Your task to perform on an android device: open app "Grab" Image 0: 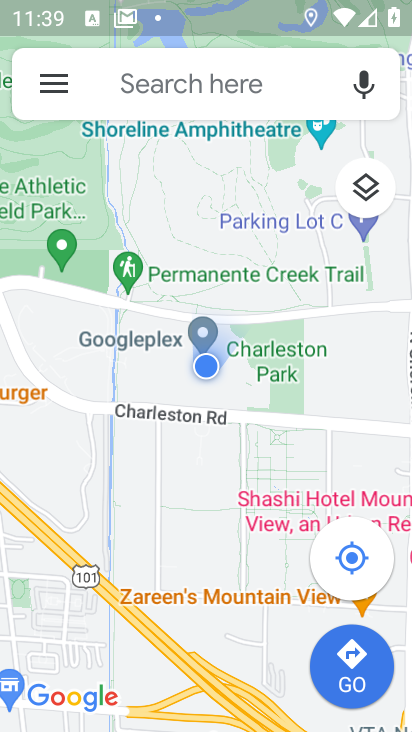
Step 0: press back button
Your task to perform on an android device: open app "Grab" Image 1: 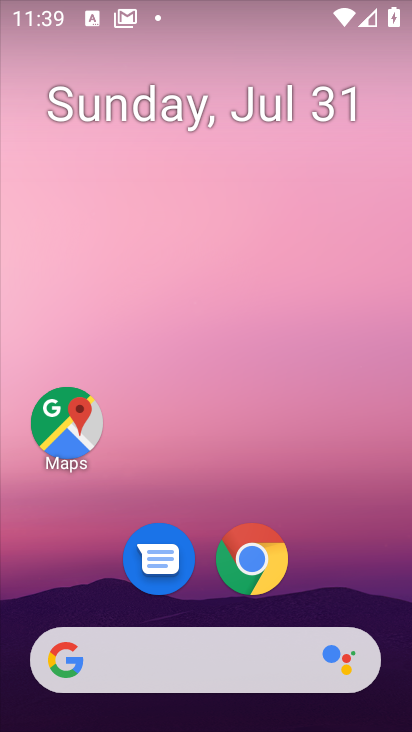
Step 1: drag from (44, 567) to (228, 15)
Your task to perform on an android device: open app "Grab" Image 2: 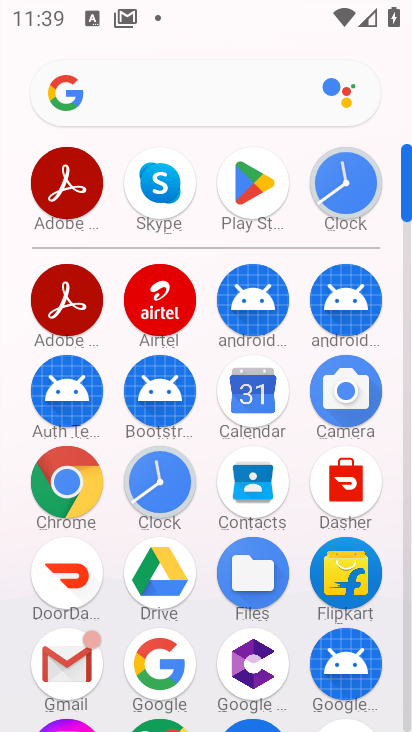
Step 2: click (264, 179)
Your task to perform on an android device: open app "Grab" Image 3: 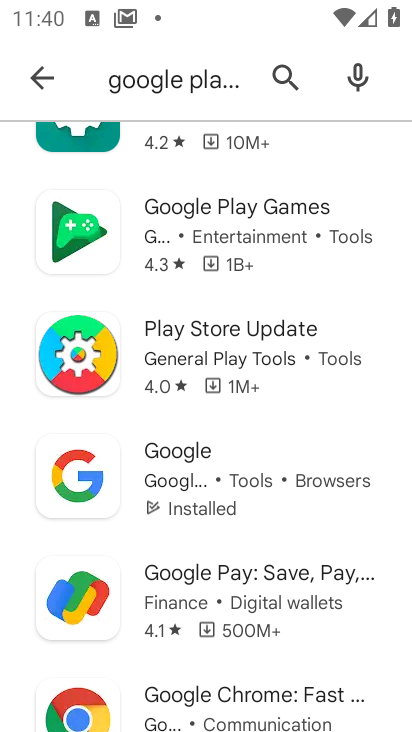
Step 3: click (285, 77)
Your task to perform on an android device: open app "Grab" Image 4: 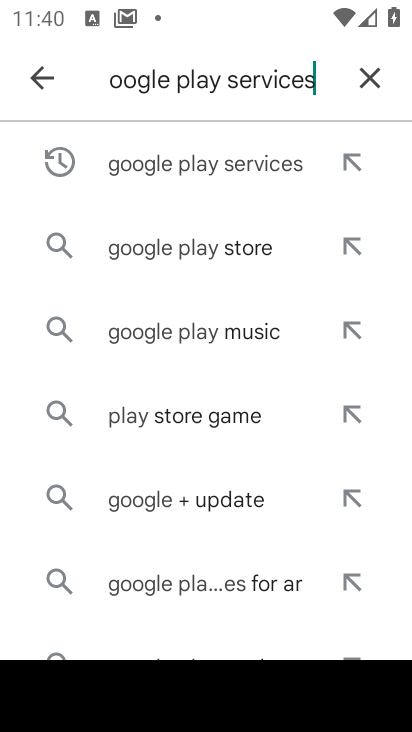
Step 4: click (373, 67)
Your task to perform on an android device: open app "Grab" Image 5: 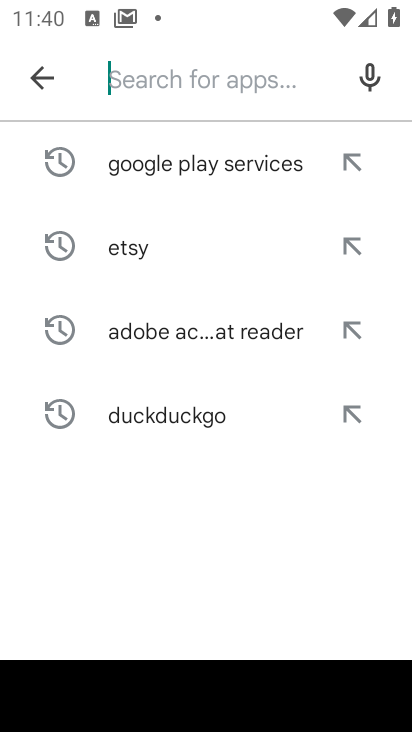
Step 5: click (150, 83)
Your task to perform on an android device: open app "Grab" Image 6: 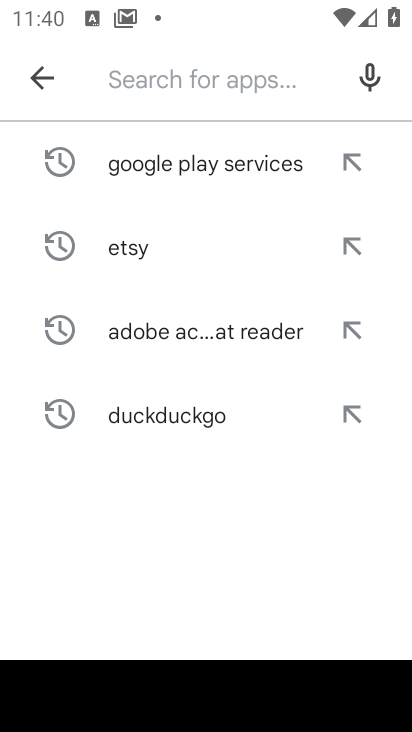
Step 6: type "grab"
Your task to perform on an android device: open app "Grab" Image 7: 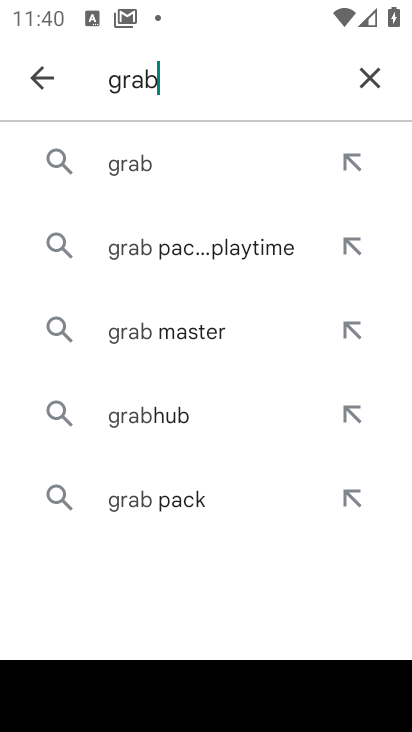
Step 7: type "\"
Your task to perform on an android device: open app "Grab" Image 8: 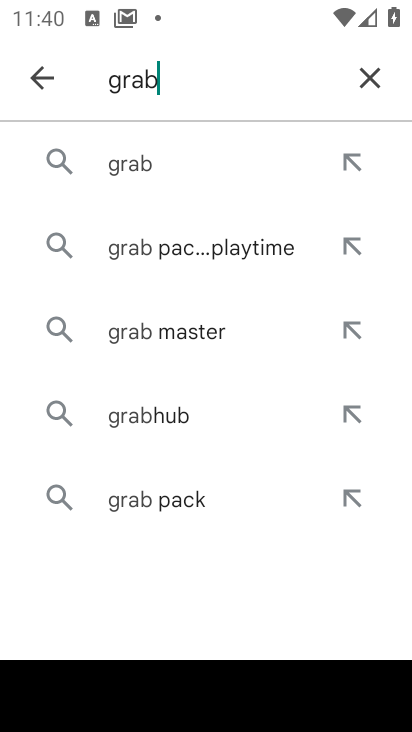
Step 8: click (138, 175)
Your task to perform on an android device: open app "Grab" Image 9: 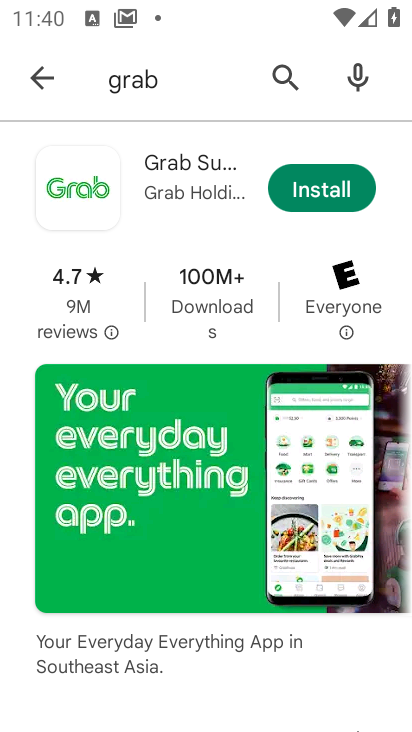
Step 9: task complete